Your task to perform on an android device: Show me the alarms in the clock app Image 0: 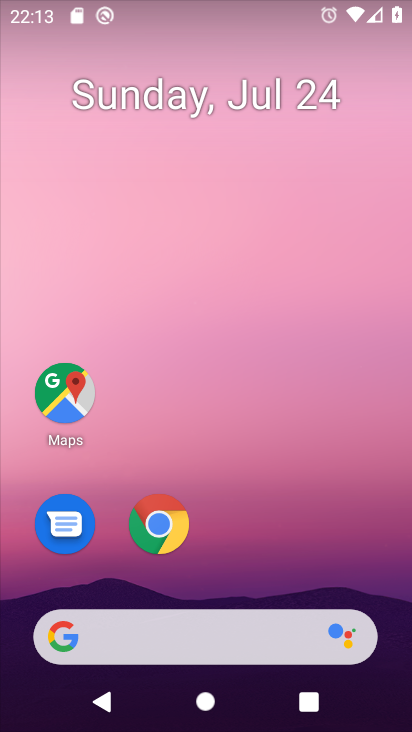
Step 0: drag from (268, 566) to (380, 30)
Your task to perform on an android device: Show me the alarms in the clock app Image 1: 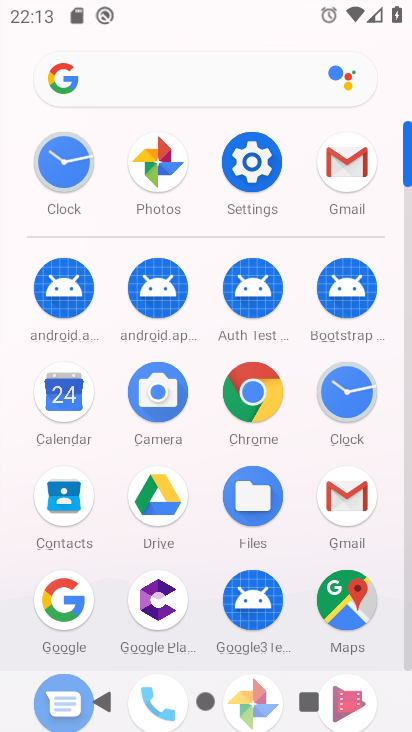
Step 1: click (76, 170)
Your task to perform on an android device: Show me the alarms in the clock app Image 2: 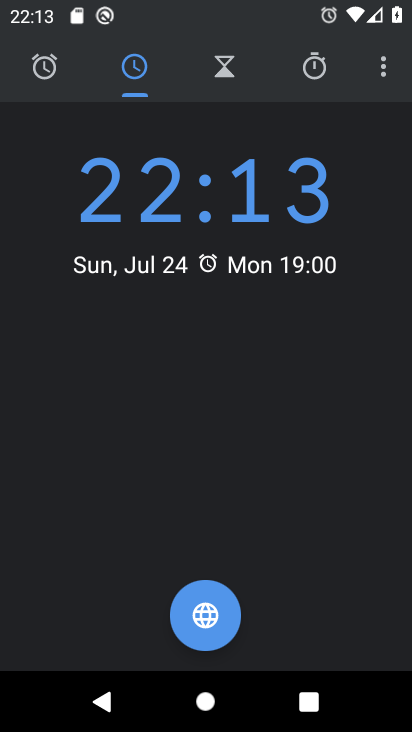
Step 2: click (48, 77)
Your task to perform on an android device: Show me the alarms in the clock app Image 3: 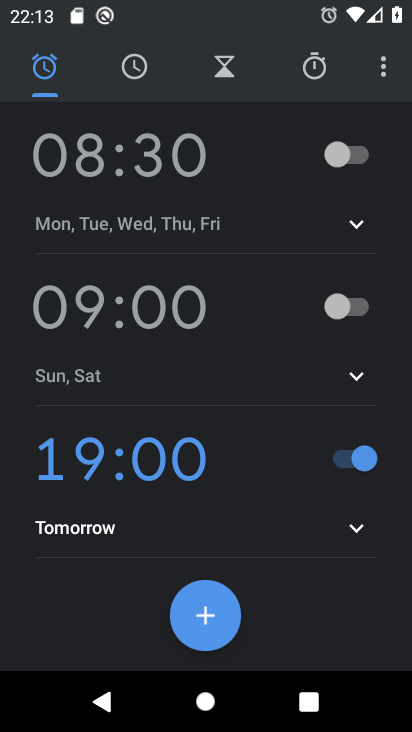
Step 3: task complete